Your task to perform on an android device: Set the phone to "Do not disturb". Image 0: 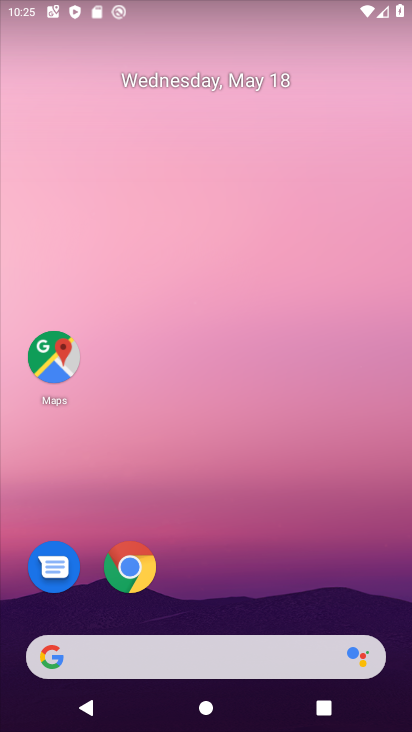
Step 0: drag from (264, 672) to (396, 193)
Your task to perform on an android device: Set the phone to "Do not disturb". Image 1: 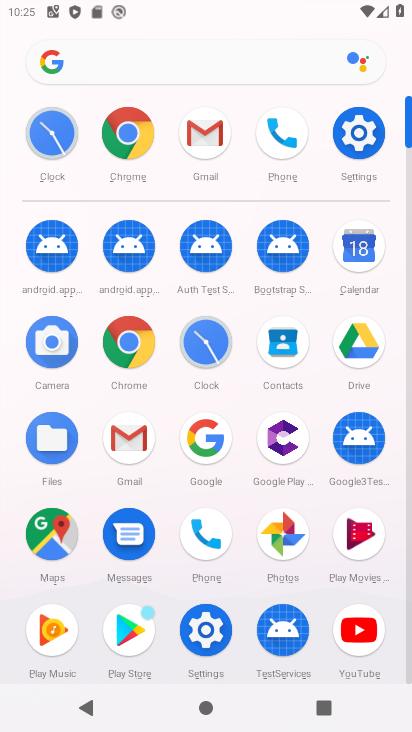
Step 1: click (220, 622)
Your task to perform on an android device: Set the phone to "Do not disturb". Image 2: 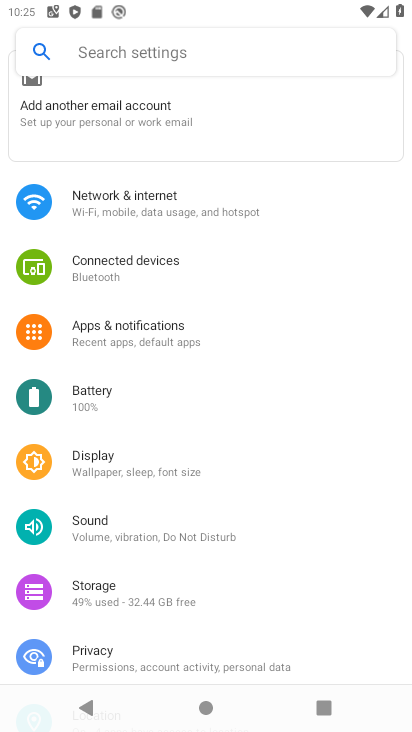
Step 2: click (163, 47)
Your task to perform on an android device: Set the phone to "Do not disturb". Image 3: 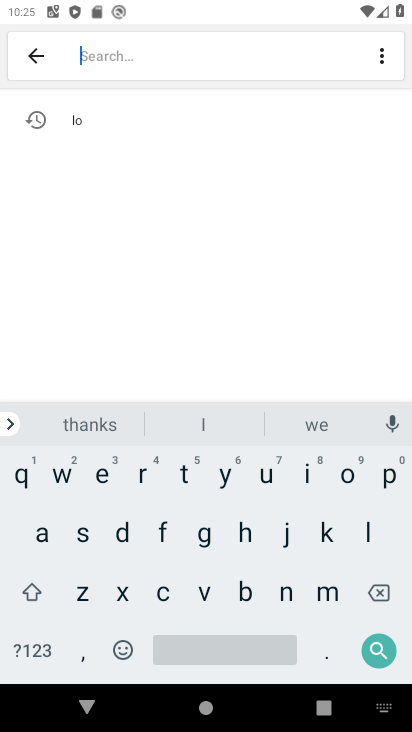
Step 3: click (117, 524)
Your task to perform on an android device: Set the phone to "Do not disturb". Image 4: 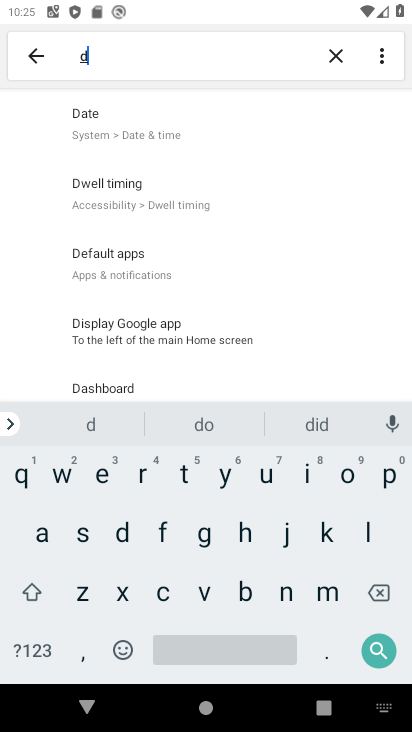
Step 4: click (284, 587)
Your task to perform on an android device: Set the phone to "Do not disturb". Image 5: 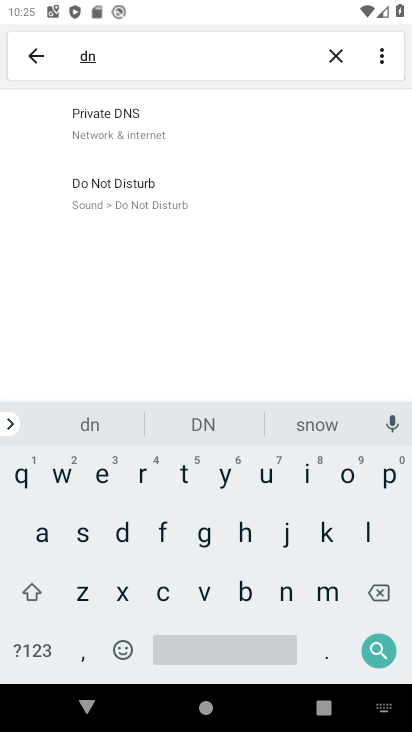
Step 5: click (139, 206)
Your task to perform on an android device: Set the phone to "Do not disturb". Image 6: 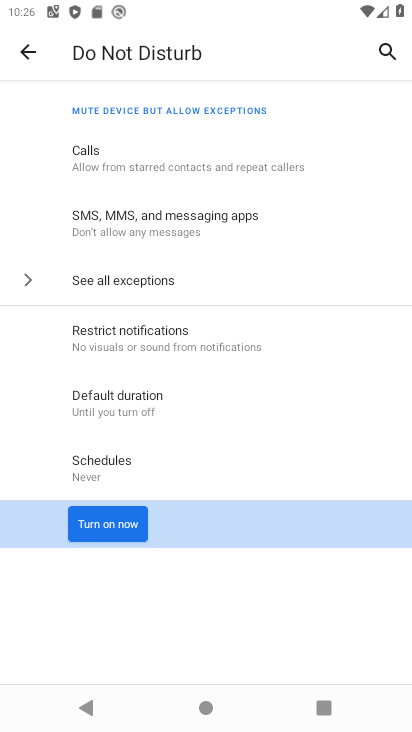
Step 6: click (95, 513)
Your task to perform on an android device: Set the phone to "Do not disturb". Image 7: 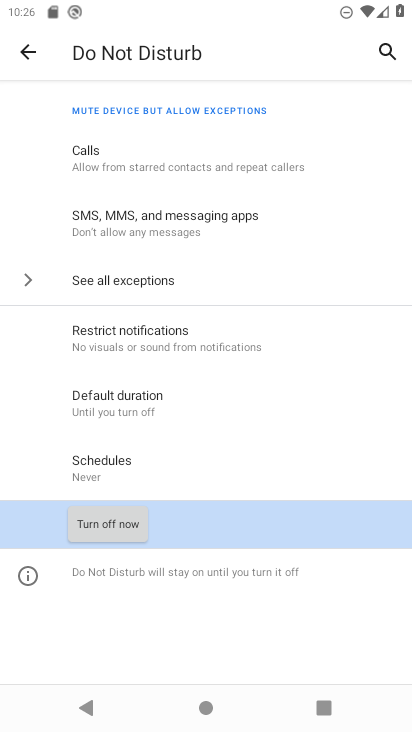
Step 7: task complete